Your task to perform on an android device: Open Google Maps and go to "Timeline" Image 0: 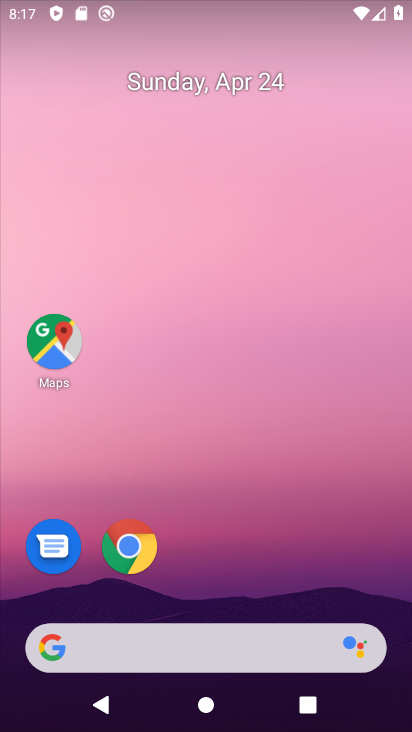
Step 0: click (44, 337)
Your task to perform on an android device: Open Google Maps and go to "Timeline" Image 1: 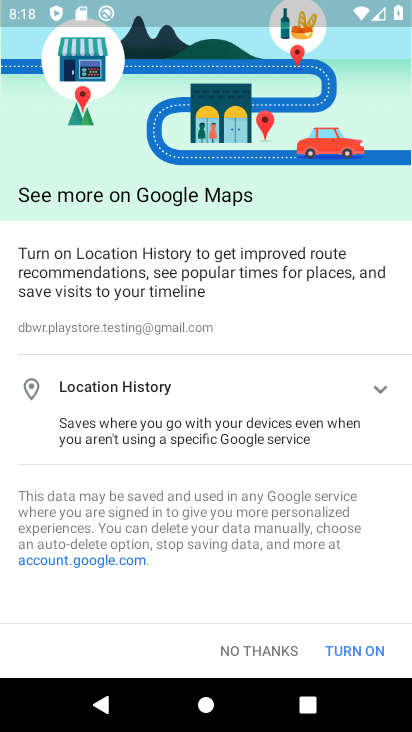
Step 1: click (353, 643)
Your task to perform on an android device: Open Google Maps and go to "Timeline" Image 2: 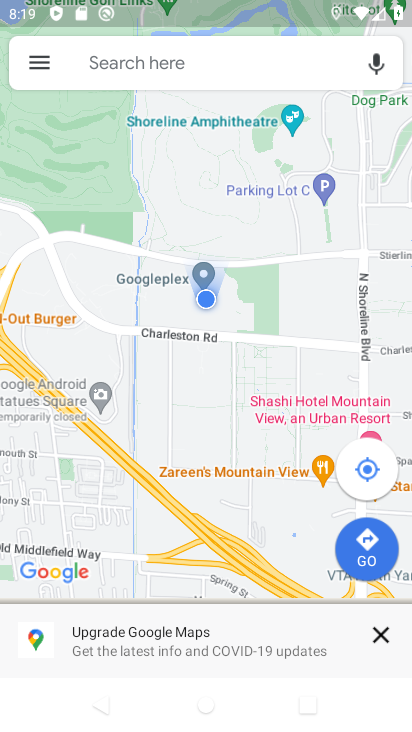
Step 2: click (48, 66)
Your task to perform on an android device: Open Google Maps and go to "Timeline" Image 3: 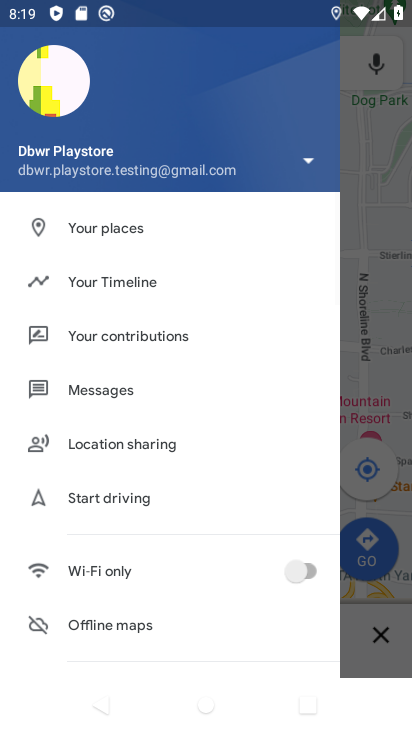
Step 3: click (161, 280)
Your task to perform on an android device: Open Google Maps and go to "Timeline" Image 4: 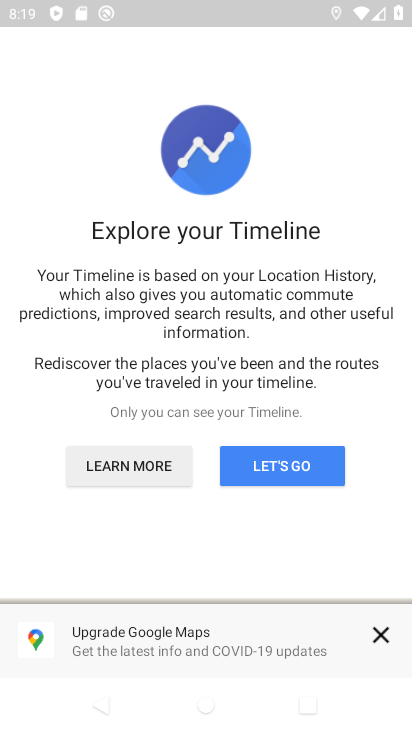
Step 4: click (293, 464)
Your task to perform on an android device: Open Google Maps and go to "Timeline" Image 5: 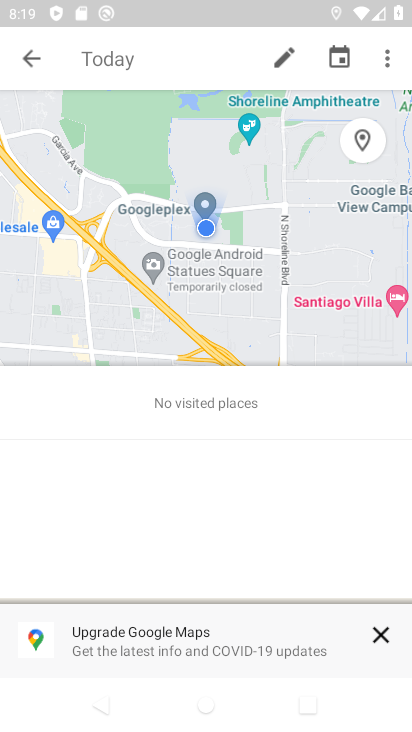
Step 5: task complete